Your task to perform on an android device: turn off airplane mode Image 0: 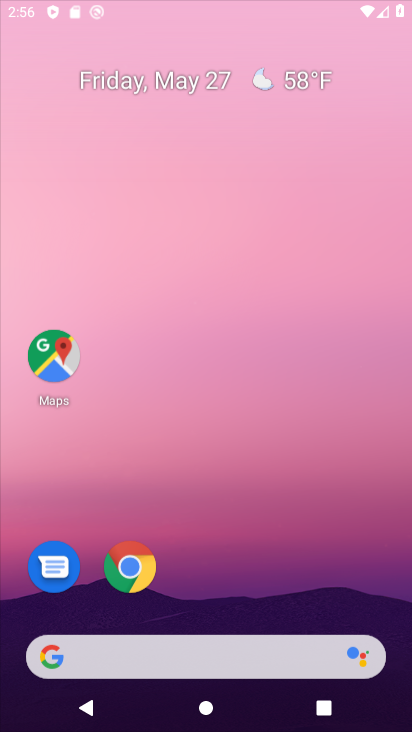
Step 0: press home button
Your task to perform on an android device: turn off airplane mode Image 1: 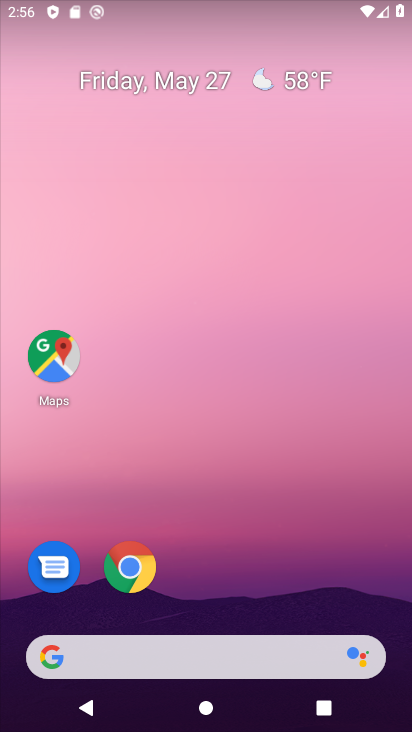
Step 1: task complete